Your task to perform on an android device: Go to privacy settings Image 0: 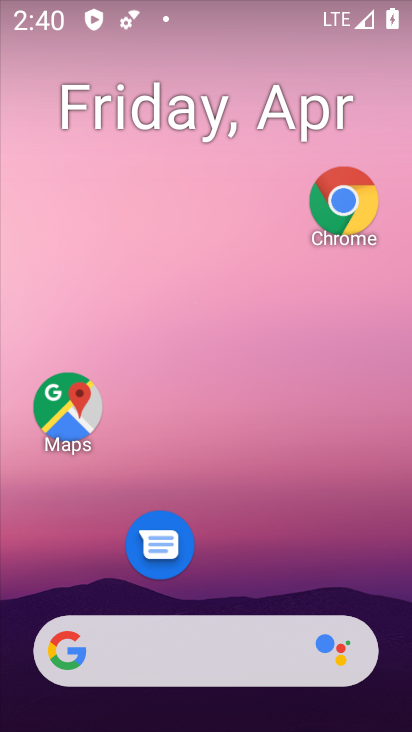
Step 0: drag from (252, 221) to (374, 7)
Your task to perform on an android device: Go to privacy settings Image 1: 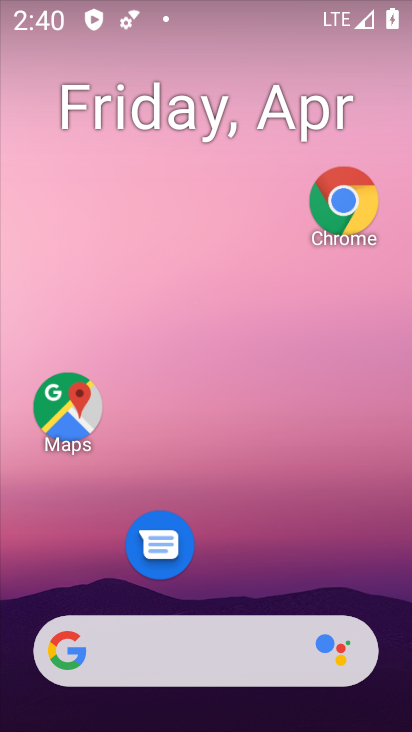
Step 1: drag from (197, 563) to (407, 60)
Your task to perform on an android device: Go to privacy settings Image 2: 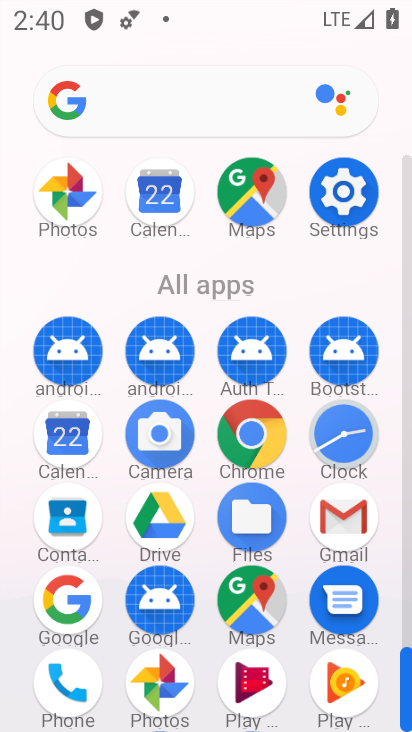
Step 2: click (365, 190)
Your task to perform on an android device: Go to privacy settings Image 3: 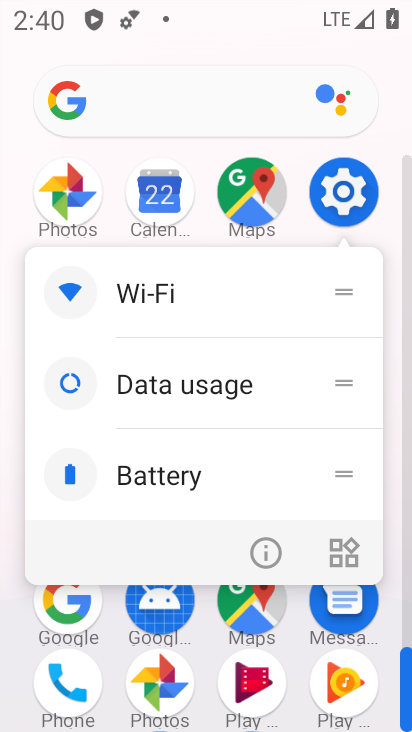
Step 3: click (357, 208)
Your task to perform on an android device: Go to privacy settings Image 4: 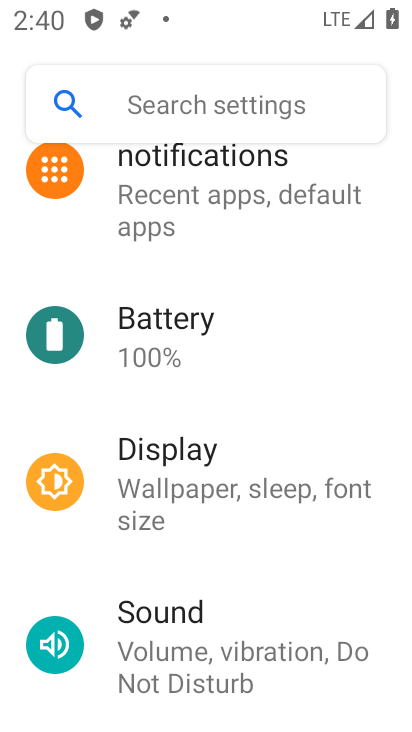
Step 4: drag from (204, 543) to (251, 294)
Your task to perform on an android device: Go to privacy settings Image 5: 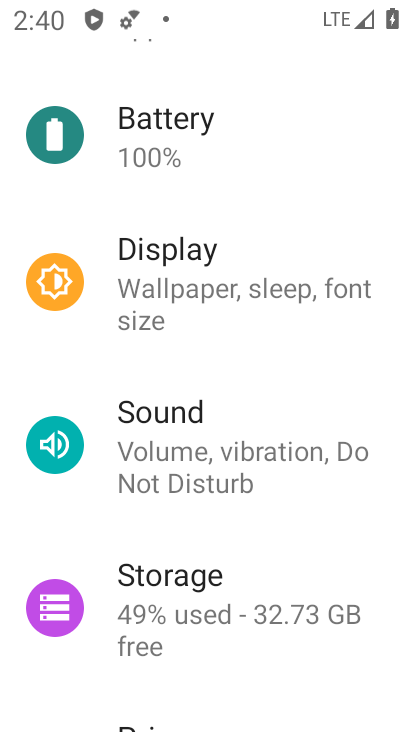
Step 5: drag from (179, 591) to (264, 259)
Your task to perform on an android device: Go to privacy settings Image 6: 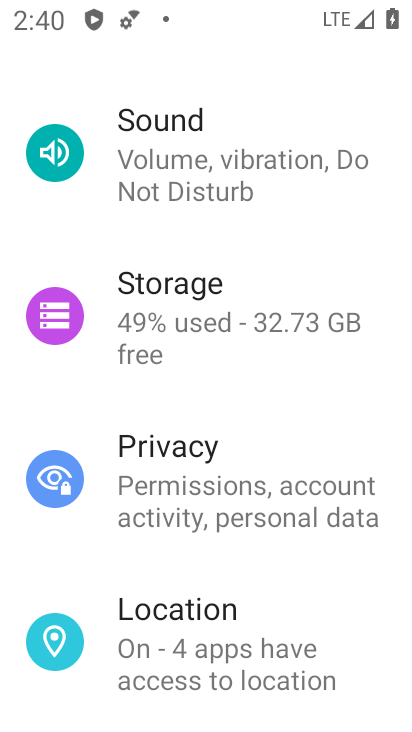
Step 6: click (227, 473)
Your task to perform on an android device: Go to privacy settings Image 7: 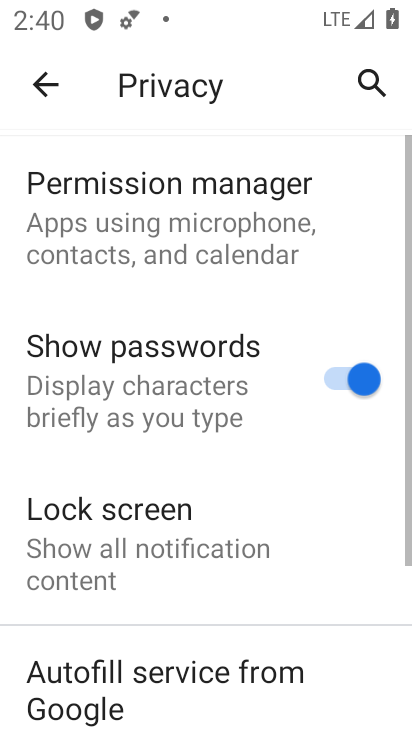
Step 7: task complete